Your task to perform on an android device: open chrome privacy settings Image 0: 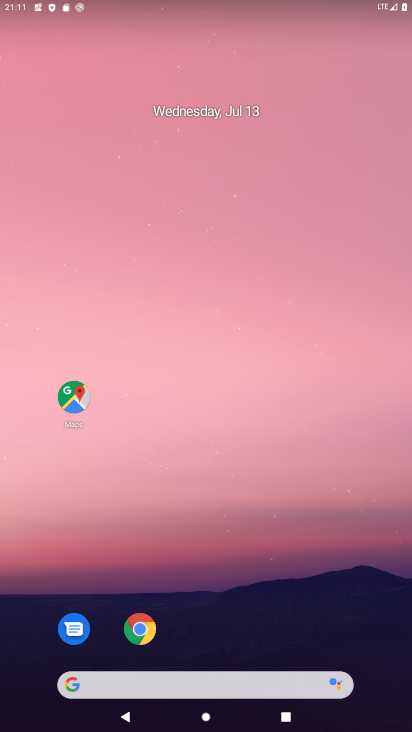
Step 0: drag from (250, 625) to (257, 98)
Your task to perform on an android device: open chrome privacy settings Image 1: 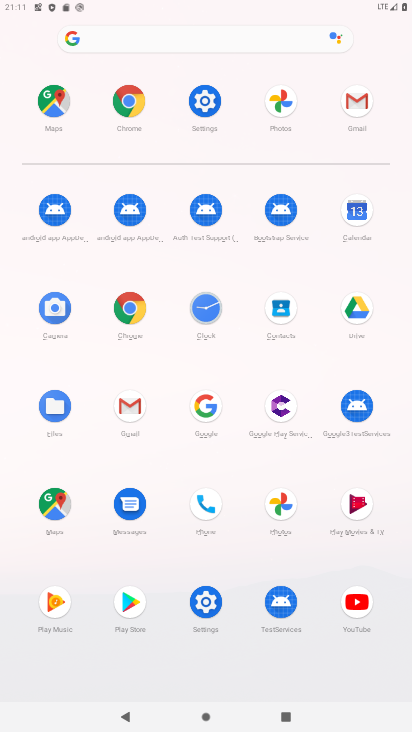
Step 1: click (134, 99)
Your task to perform on an android device: open chrome privacy settings Image 2: 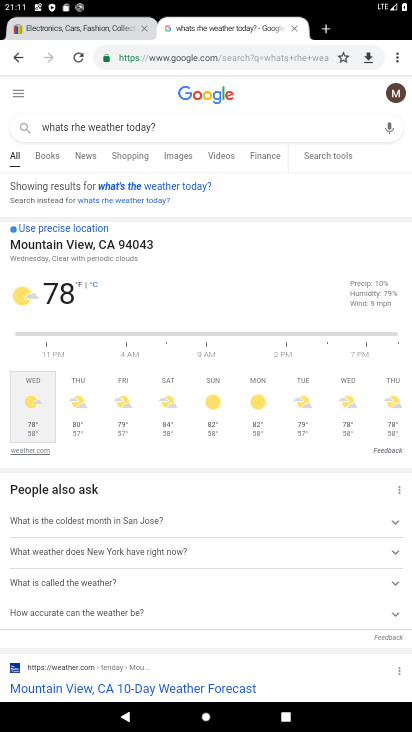
Step 2: drag from (396, 54) to (264, 352)
Your task to perform on an android device: open chrome privacy settings Image 3: 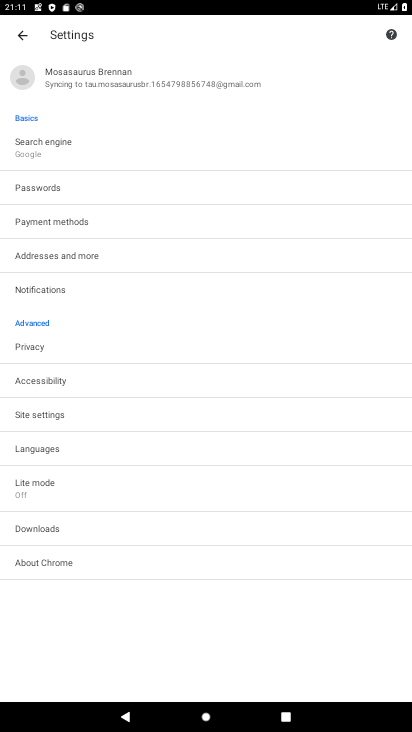
Step 3: click (40, 350)
Your task to perform on an android device: open chrome privacy settings Image 4: 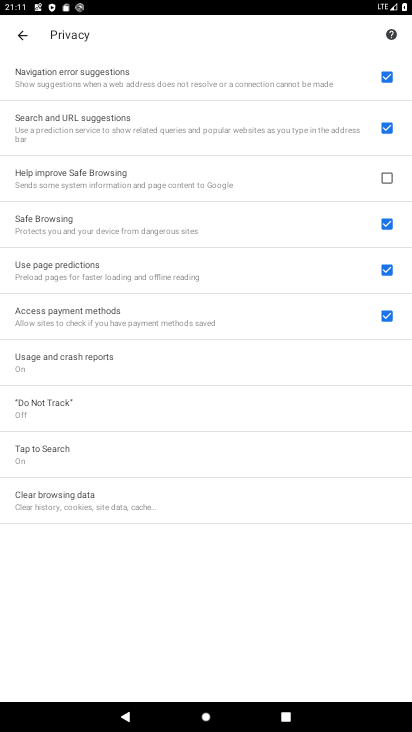
Step 4: task complete